Your task to perform on an android device: Open Google Chrome and click the shortcut for Amazon.com Image 0: 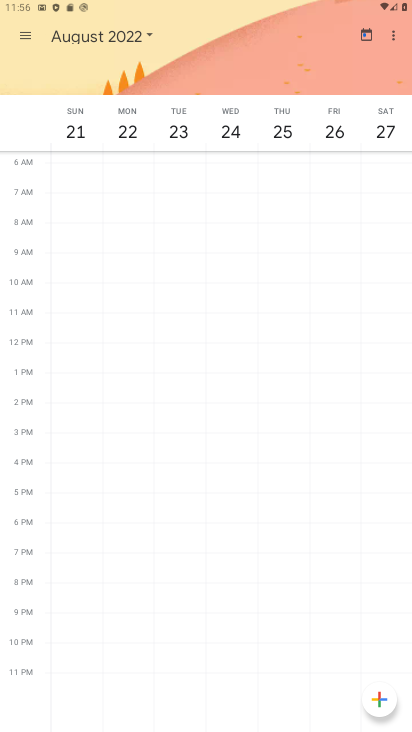
Step 0: press home button
Your task to perform on an android device: Open Google Chrome and click the shortcut for Amazon.com Image 1: 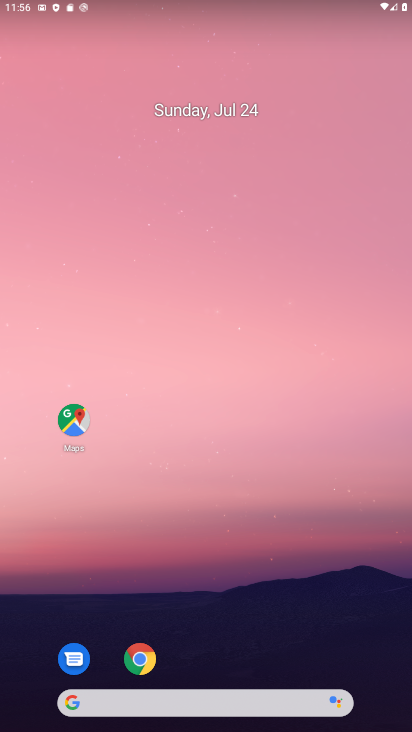
Step 1: click (136, 653)
Your task to perform on an android device: Open Google Chrome and click the shortcut for Amazon.com Image 2: 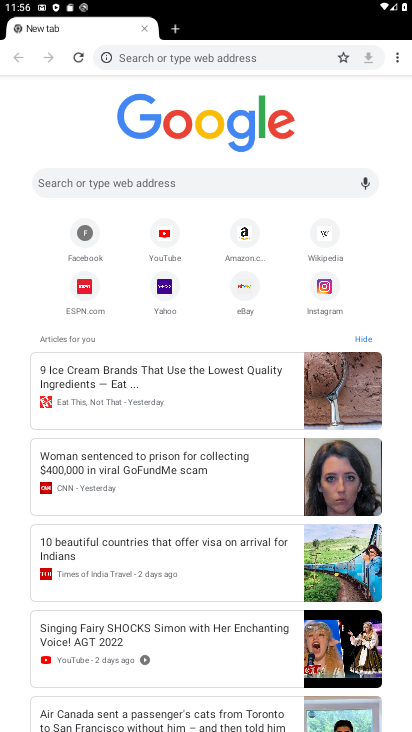
Step 2: click (246, 231)
Your task to perform on an android device: Open Google Chrome and click the shortcut for Amazon.com Image 3: 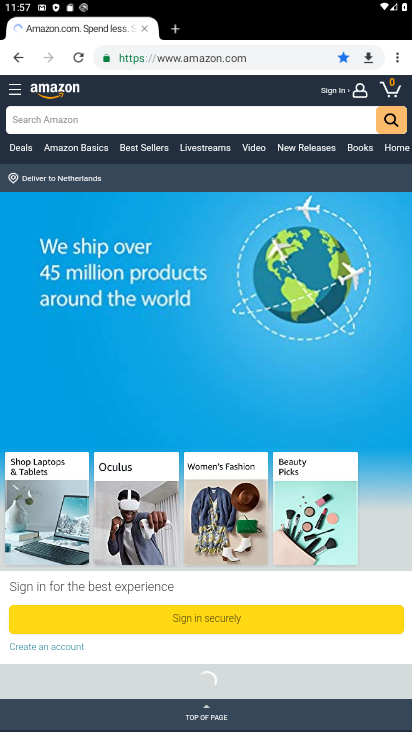
Step 3: task complete